Your task to perform on an android device: Search for vegetarian restaurants on Maps Image 0: 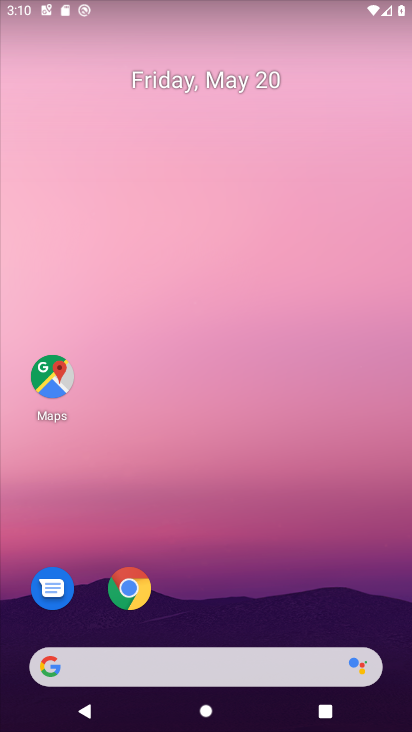
Step 0: click (43, 373)
Your task to perform on an android device: Search for vegetarian restaurants on Maps Image 1: 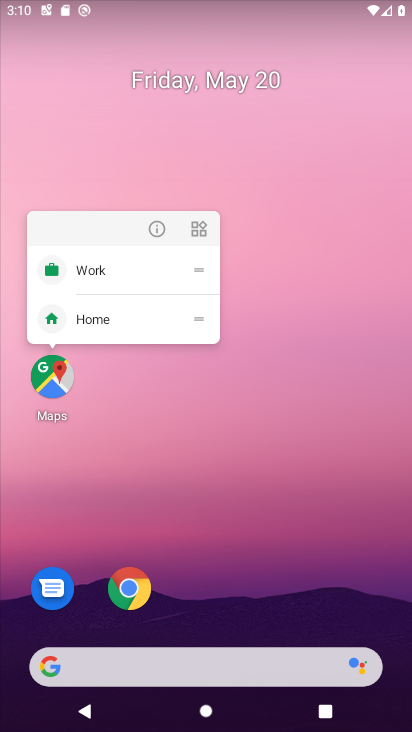
Step 1: click (58, 373)
Your task to perform on an android device: Search for vegetarian restaurants on Maps Image 2: 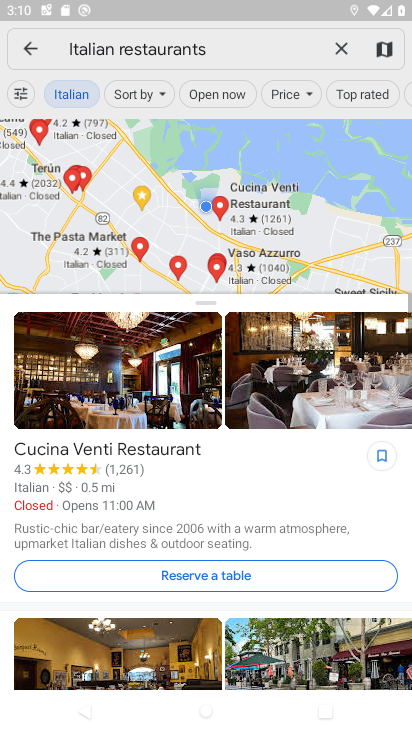
Step 2: click (289, 46)
Your task to perform on an android device: Search for vegetarian restaurants on Maps Image 3: 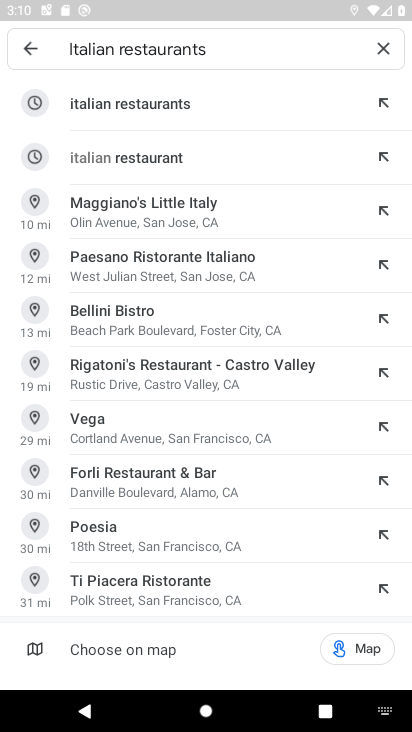
Step 3: click (378, 45)
Your task to perform on an android device: Search for vegetarian restaurants on Maps Image 4: 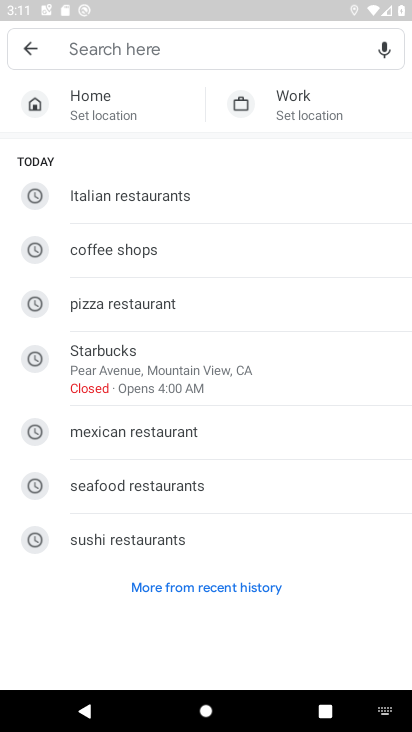
Step 4: type "Vegetarian restaurants"
Your task to perform on an android device: Search for vegetarian restaurants on Maps Image 5: 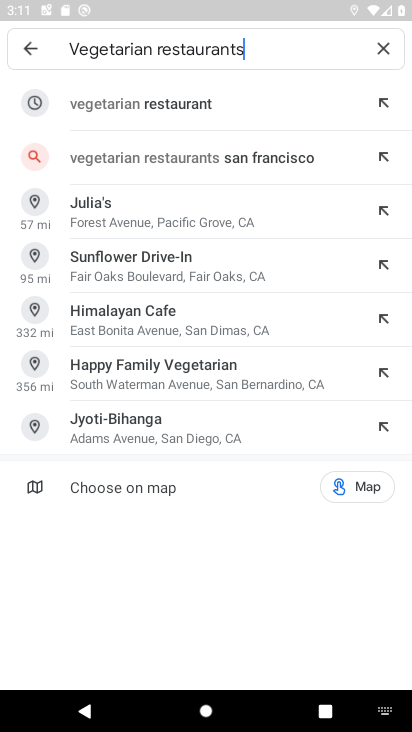
Step 5: press enter
Your task to perform on an android device: Search for vegetarian restaurants on Maps Image 6: 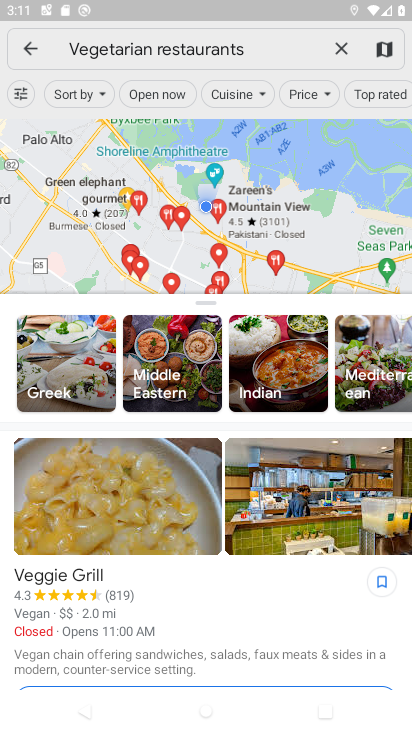
Step 6: task complete